Your task to perform on an android device: change the clock display to analog Image 0: 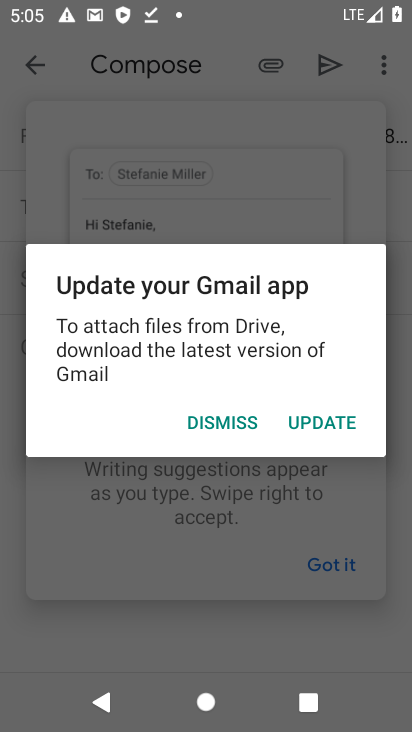
Step 0: drag from (194, 586) to (259, 49)
Your task to perform on an android device: change the clock display to analog Image 1: 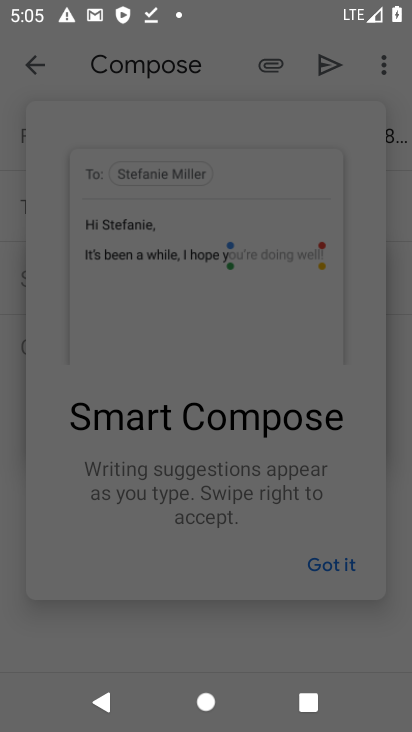
Step 1: press home button
Your task to perform on an android device: change the clock display to analog Image 2: 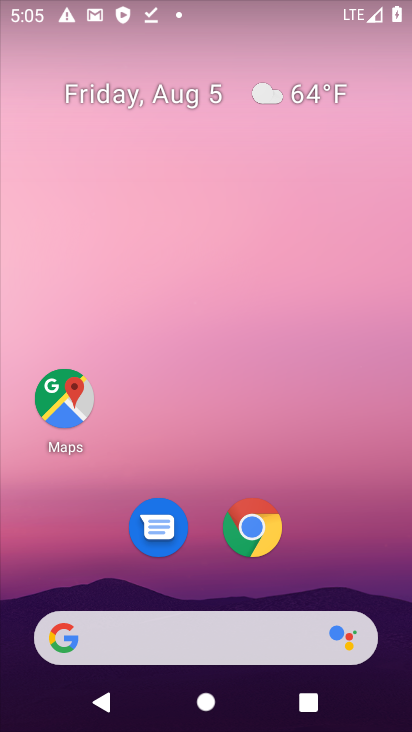
Step 2: drag from (209, 589) to (254, 84)
Your task to perform on an android device: change the clock display to analog Image 3: 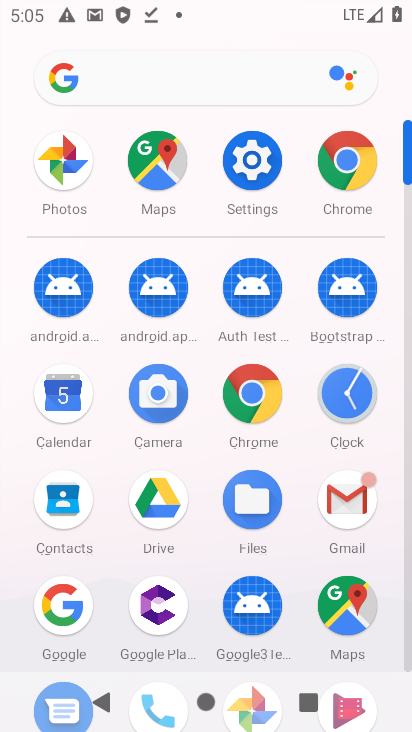
Step 3: click (339, 390)
Your task to perform on an android device: change the clock display to analog Image 4: 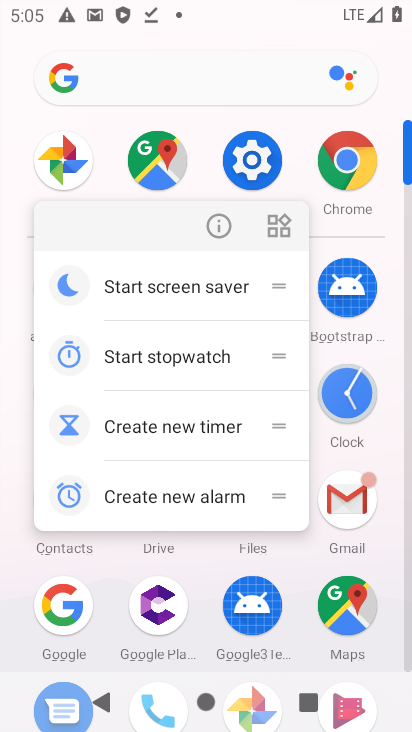
Step 4: click (229, 229)
Your task to perform on an android device: change the clock display to analog Image 5: 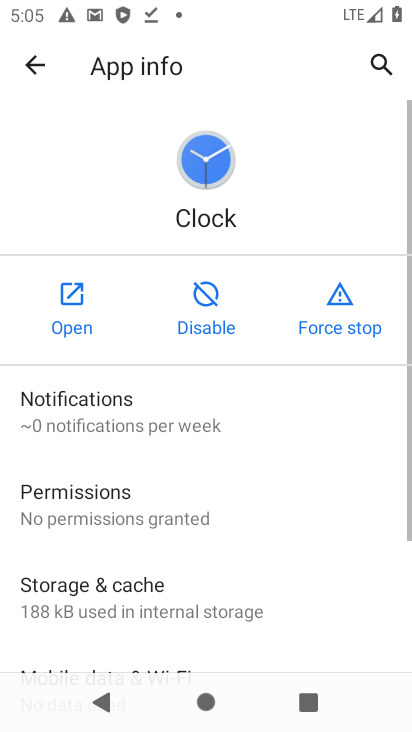
Step 5: click (65, 293)
Your task to perform on an android device: change the clock display to analog Image 6: 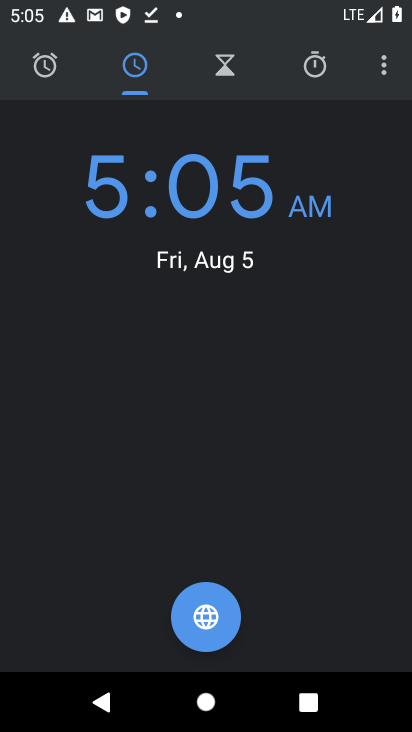
Step 6: drag from (381, 60) to (290, 126)
Your task to perform on an android device: change the clock display to analog Image 7: 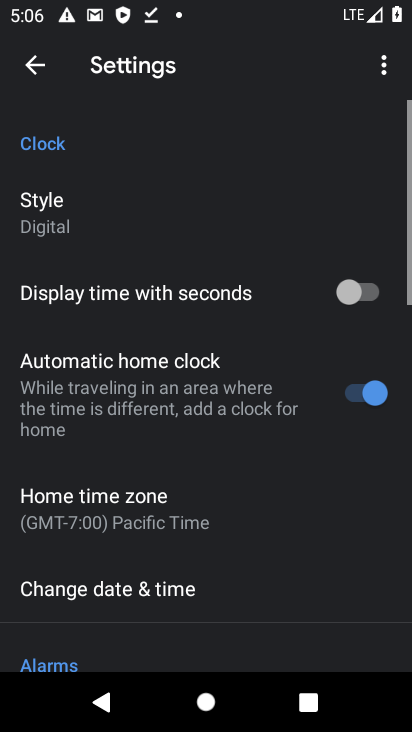
Step 7: click (48, 225)
Your task to perform on an android device: change the clock display to analog Image 8: 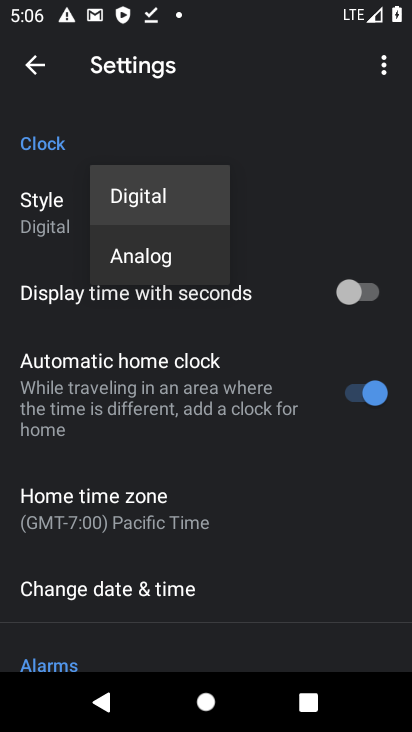
Step 8: click (194, 256)
Your task to perform on an android device: change the clock display to analog Image 9: 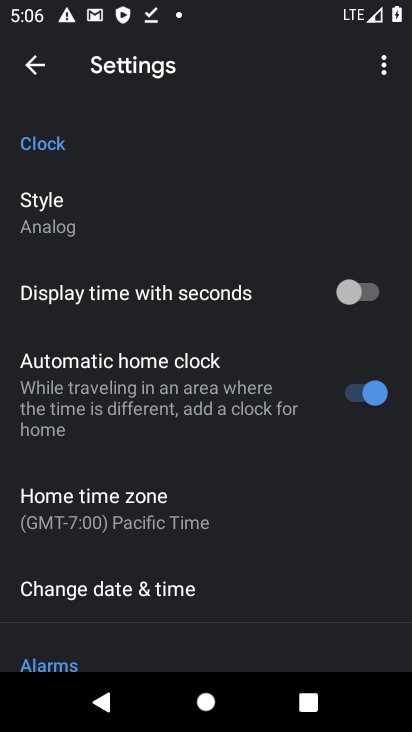
Step 9: task complete